Your task to perform on an android device: Add alienware area 51 to the cart on costco.com Image 0: 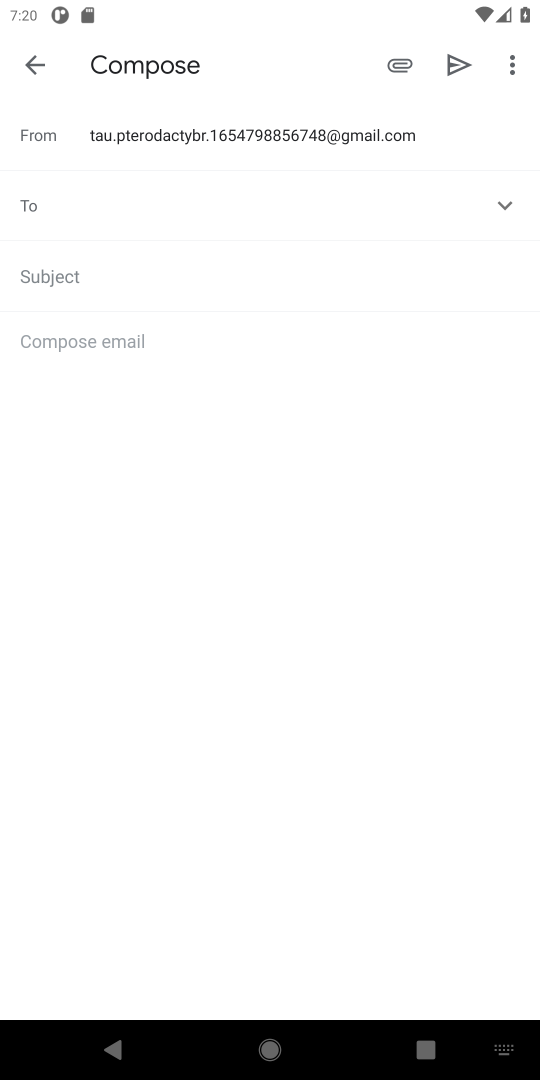
Step 0: press home button
Your task to perform on an android device: Add alienware area 51 to the cart on costco.com Image 1: 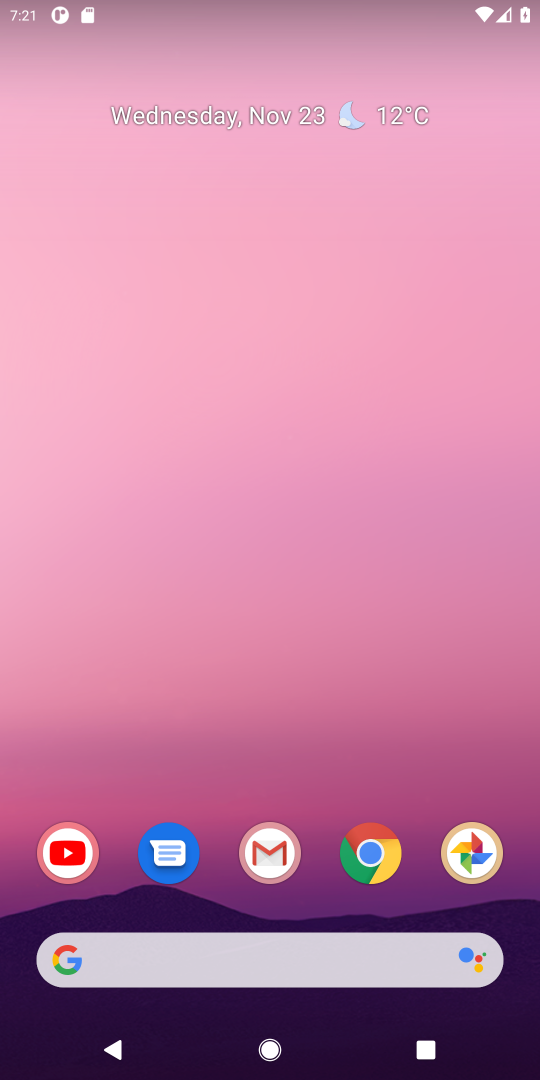
Step 1: click (361, 859)
Your task to perform on an android device: Add alienware area 51 to the cart on costco.com Image 2: 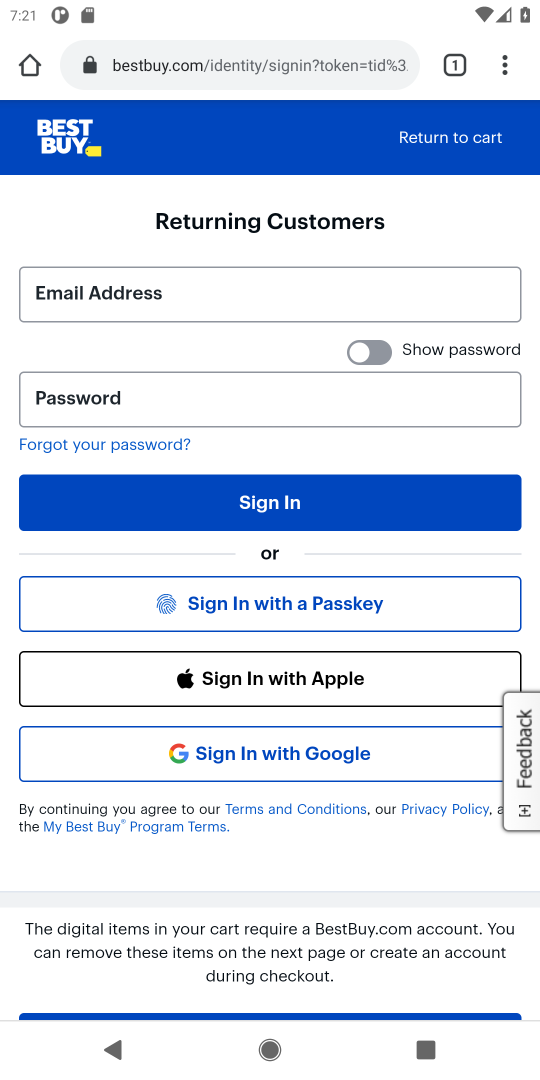
Step 2: click (237, 70)
Your task to perform on an android device: Add alienware area 51 to the cart on costco.com Image 3: 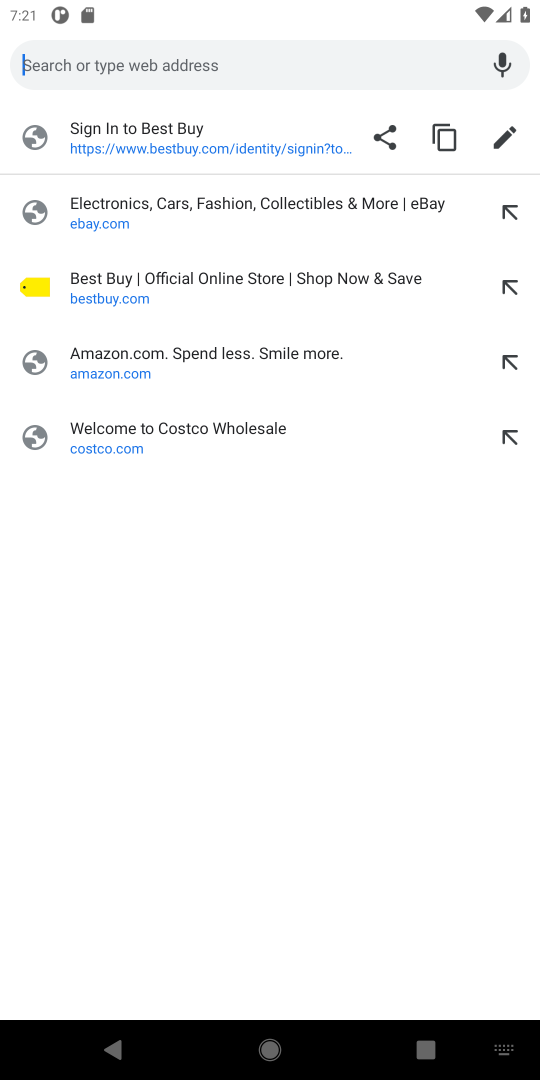
Step 3: click (90, 448)
Your task to perform on an android device: Add alienware area 51 to the cart on costco.com Image 4: 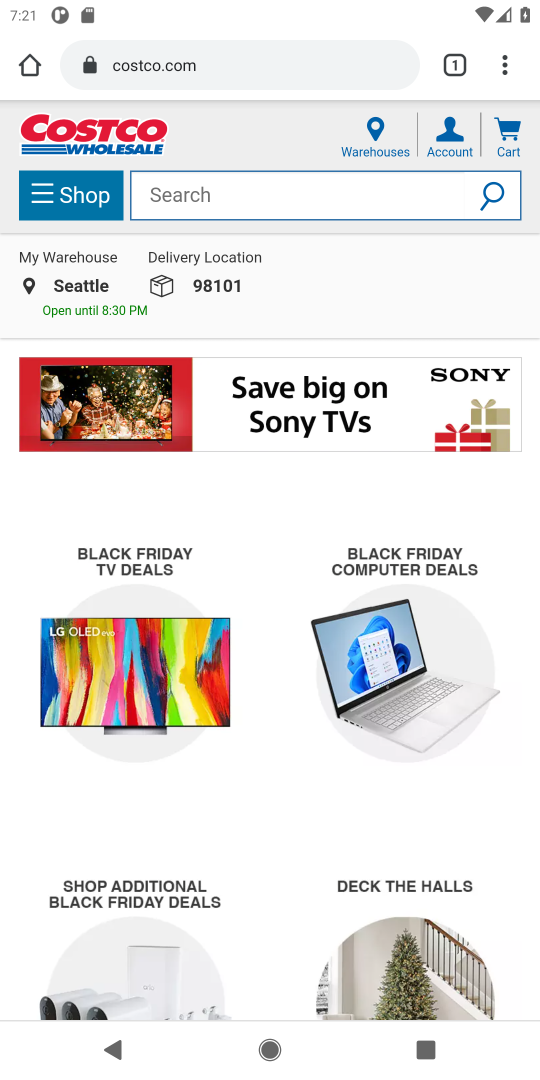
Step 4: click (211, 194)
Your task to perform on an android device: Add alienware area 51 to the cart on costco.com Image 5: 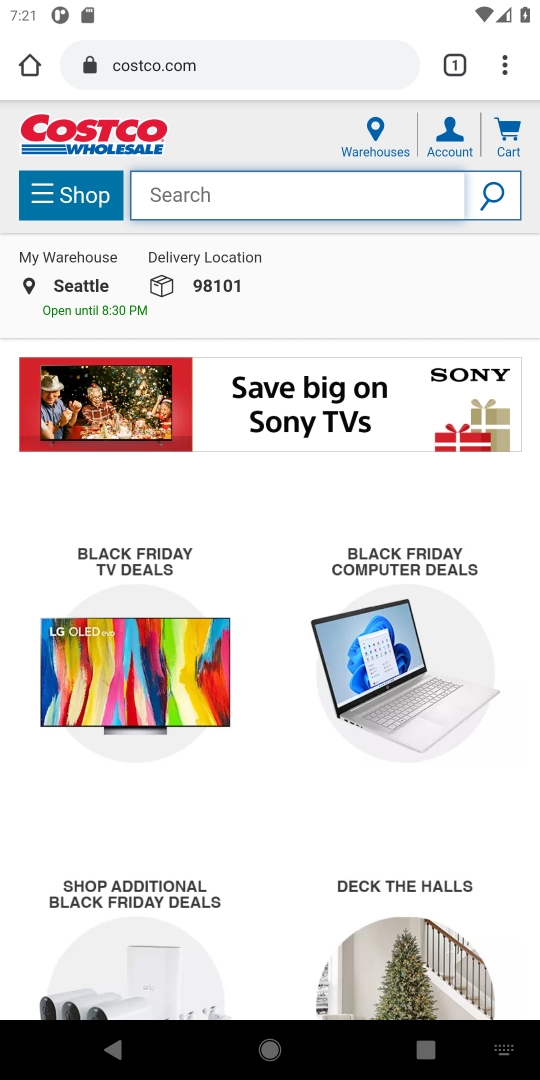
Step 5: type "alienware area 51"
Your task to perform on an android device: Add alienware area 51 to the cart on costco.com Image 6: 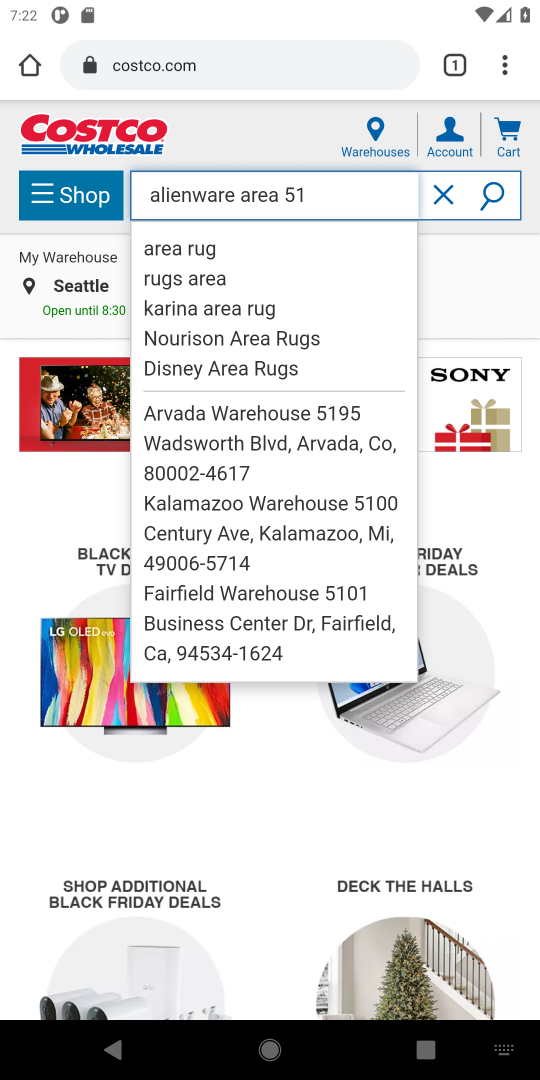
Step 6: click (494, 197)
Your task to perform on an android device: Add alienware area 51 to the cart on costco.com Image 7: 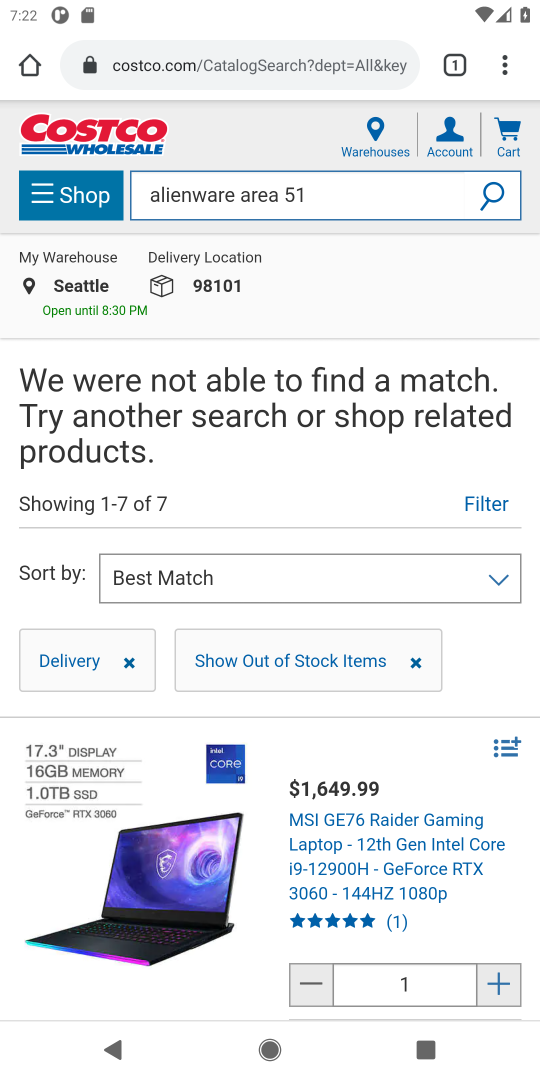
Step 7: task complete